Your task to perform on an android device: What's the weather today? Image 0: 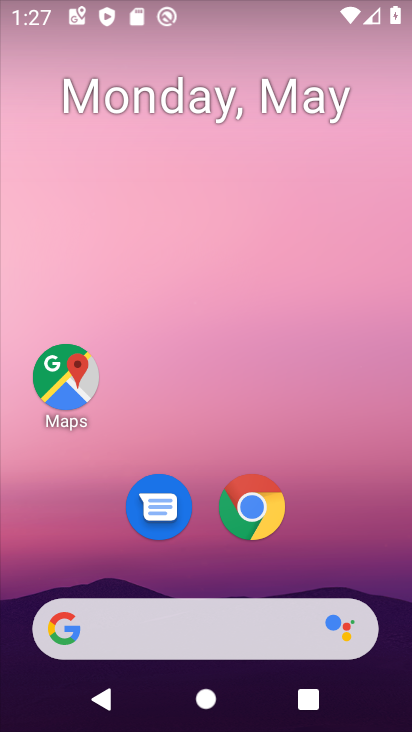
Step 0: drag from (245, 725) to (238, 20)
Your task to perform on an android device: What's the weather today? Image 1: 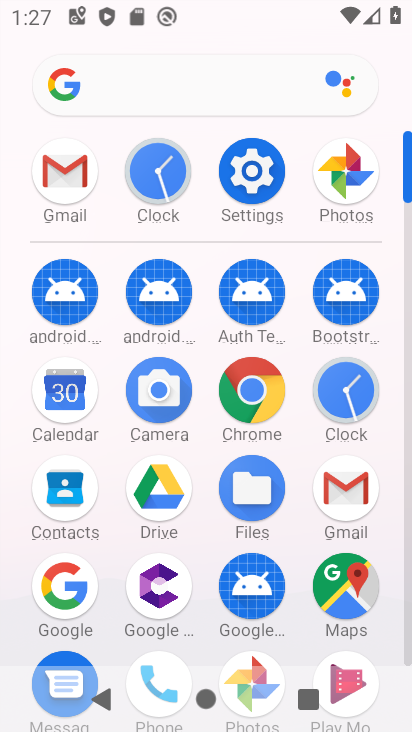
Step 1: click (66, 587)
Your task to perform on an android device: What's the weather today? Image 2: 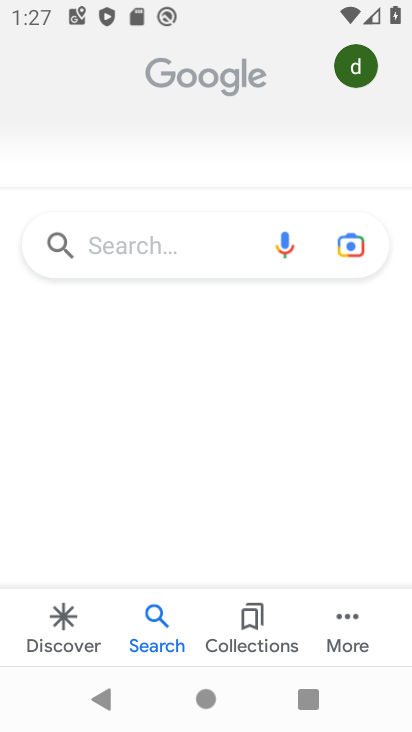
Step 2: click (158, 247)
Your task to perform on an android device: What's the weather today? Image 3: 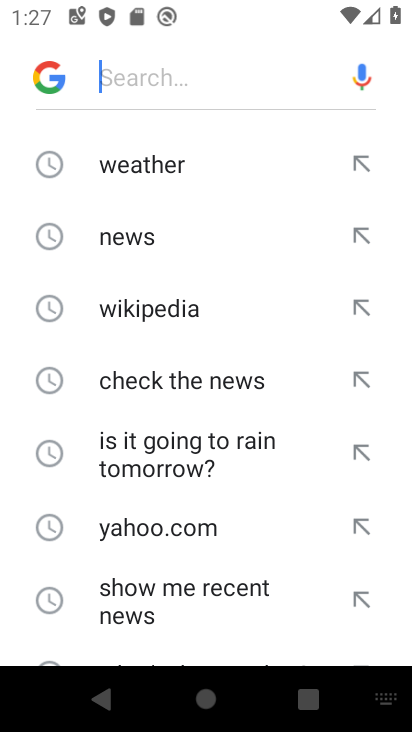
Step 3: click (130, 157)
Your task to perform on an android device: What's the weather today? Image 4: 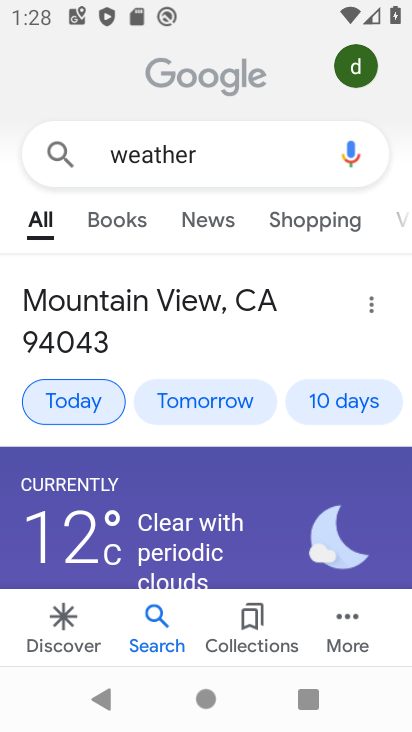
Step 4: click (83, 395)
Your task to perform on an android device: What's the weather today? Image 5: 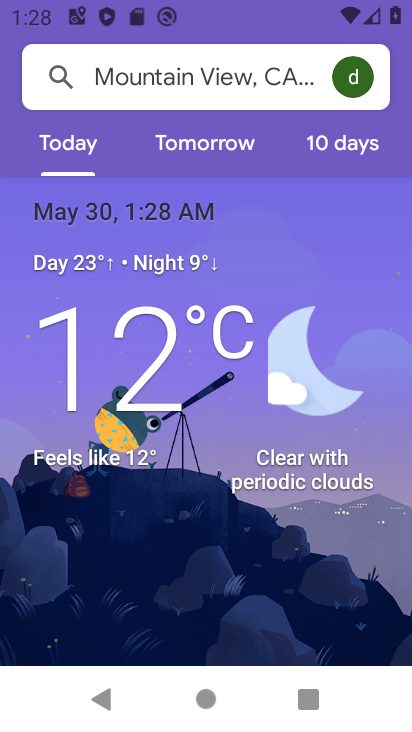
Step 5: task complete